Your task to perform on an android device: turn off notifications settings in the gmail app Image 0: 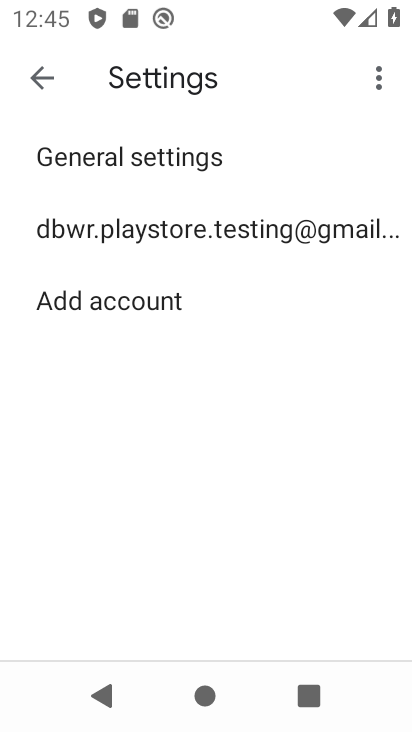
Step 0: press home button
Your task to perform on an android device: turn off notifications settings in the gmail app Image 1: 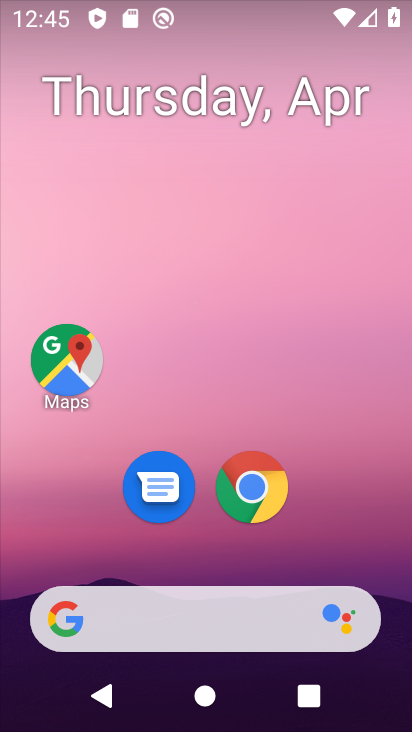
Step 1: drag from (388, 530) to (350, 155)
Your task to perform on an android device: turn off notifications settings in the gmail app Image 2: 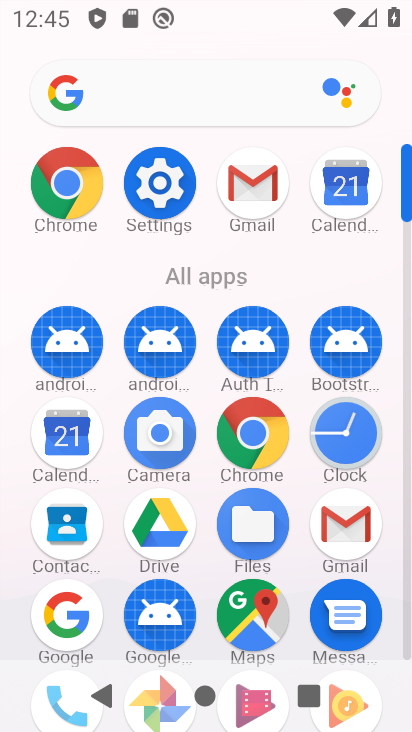
Step 2: click (333, 524)
Your task to perform on an android device: turn off notifications settings in the gmail app Image 3: 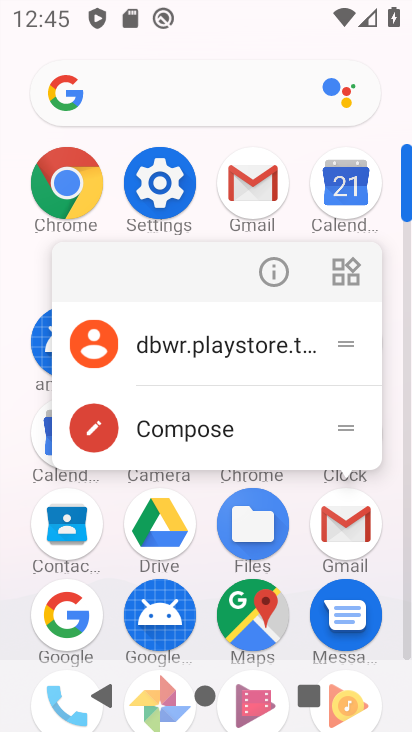
Step 3: click (344, 533)
Your task to perform on an android device: turn off notifications settings in the gmail app Image 4: 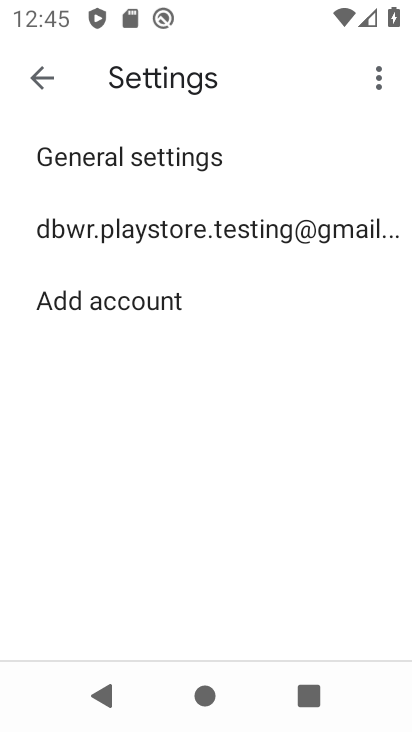
Step 4: click (235, 236)
Your task to perform on an android device: turn off notifications settings in the gmail app Image 5: 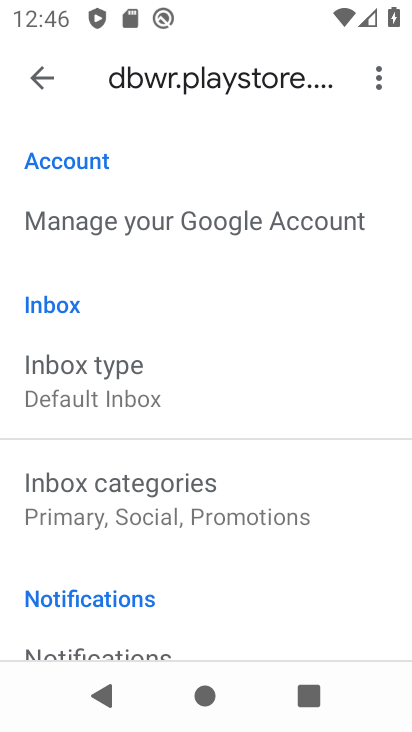
Step 5: drag from (355, 580) to (358, 301)
Your task to perform on an android device: turn off notifications settings in the gmail app Image 6: 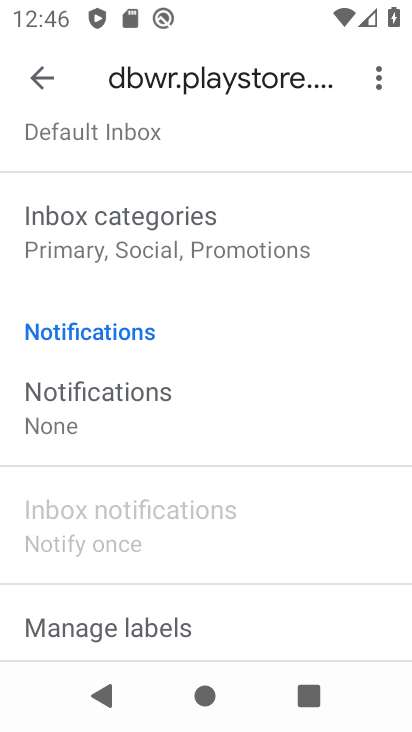
Step 6: click (86, 398)
Your task to perform on an android device: turn off notifications settings in the gmail app Image 7: 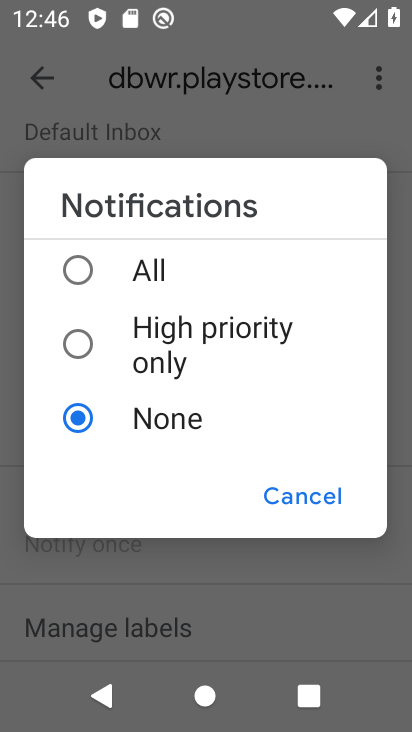
Step 7: task complete